Your task to perform on an android device: turn off airplane mode Image 0: 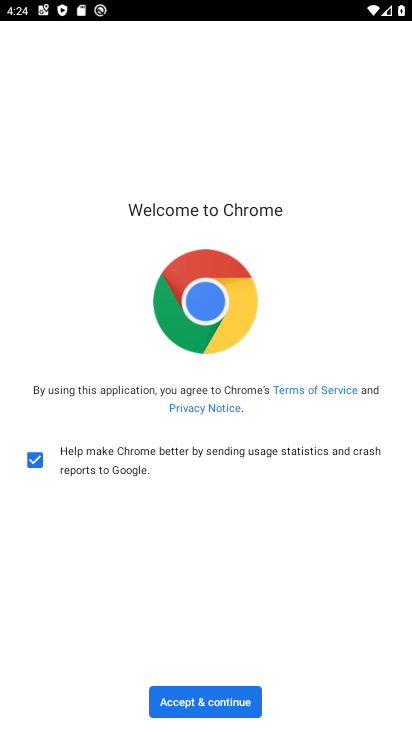
Step 0: press home button
Your task to perform on an android device: turn off airplane mode Image 1: 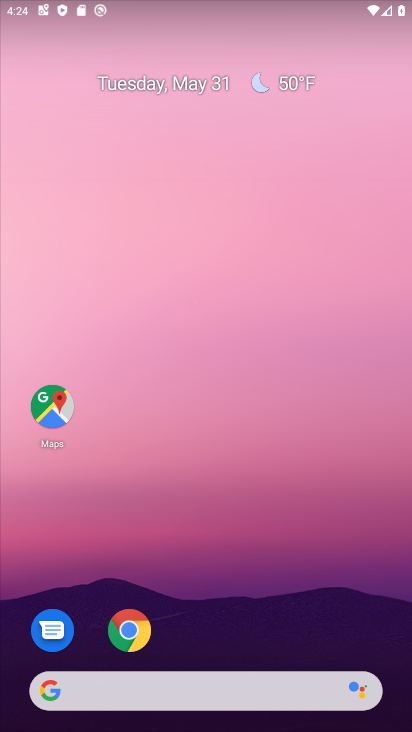
Step 1: drag from (188, 635) to (305, 175)
Your task to perform on an android device: turn off airplane mode Image 2: 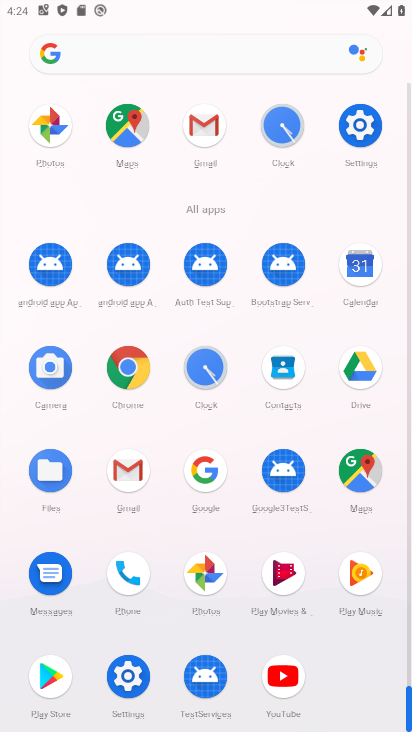
Step 2: drag from (148, 587) to (209, 402)
Your task to perform on an android device: turn off airplane mode Image 3: 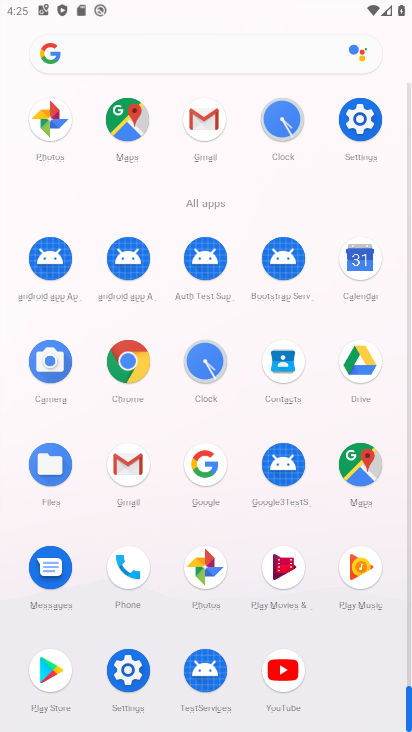
Step 3: click (126, 668)
Your task to perform on an android device: turn off airplane mode Image 4: 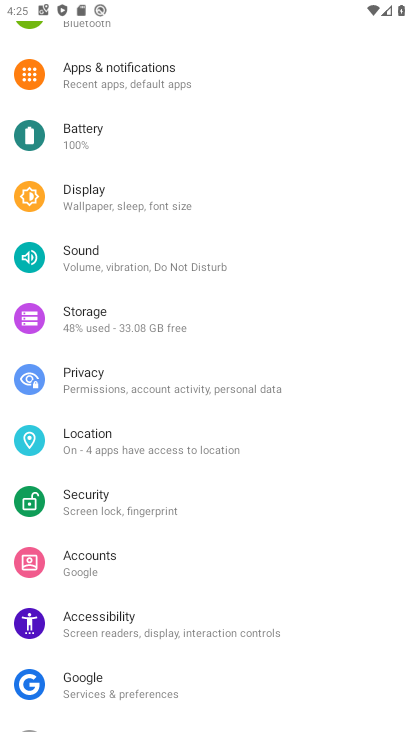
Step 4: drag from (216, 143) to (212, 446)
Your task to perform on an android device: turn off airplane mode Image 5: 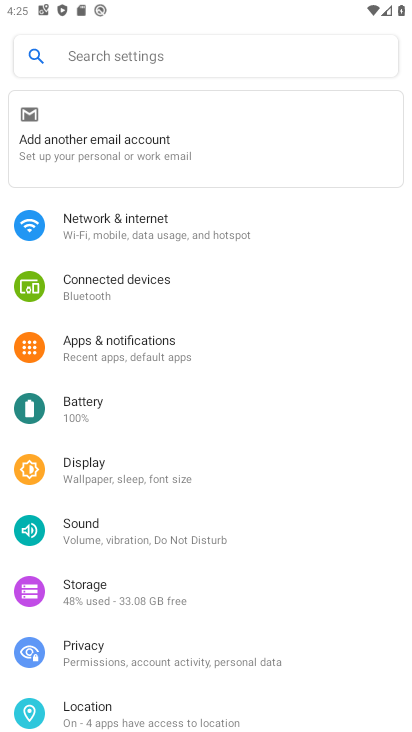
Step 5: click (210, 218)
Your task to perform on an android device: turn off airplane mode Image 6: 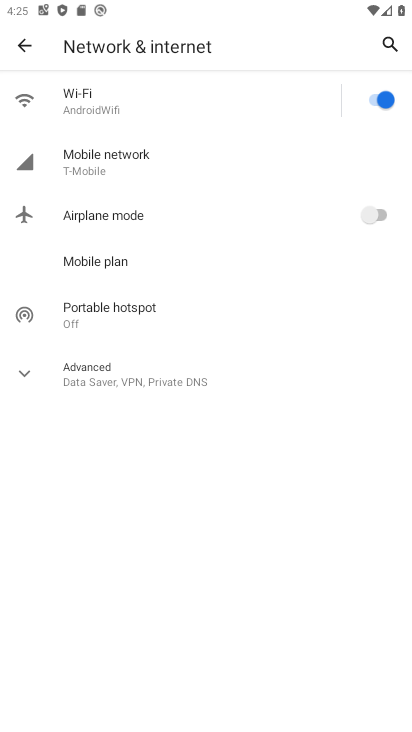
Step 6: task complete